Your task to perform on an android device: delete location history Image 0: 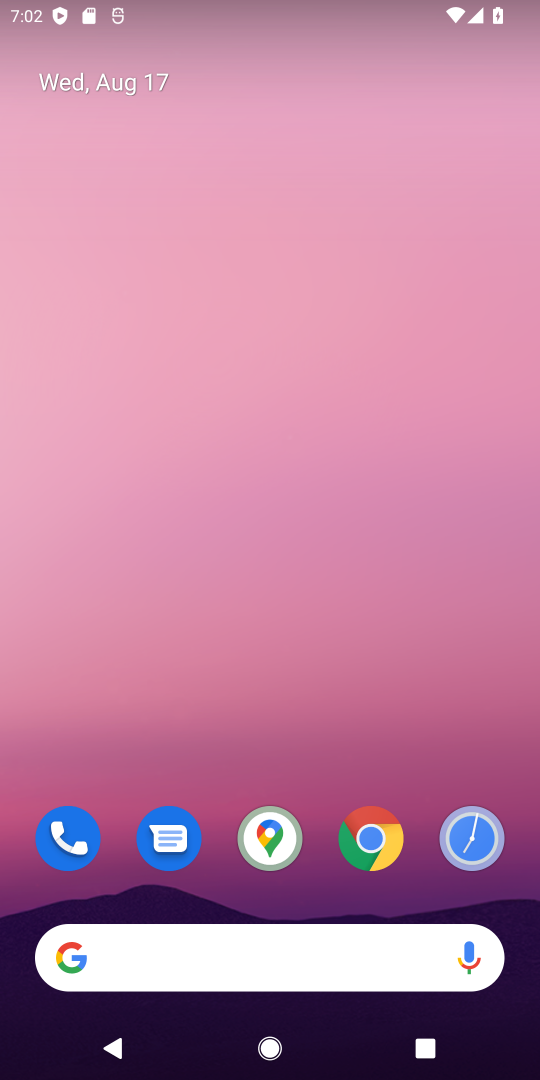
Step 0: drag from (303, 601) to (294, 173)
Your task to perform on an android device: delete location history Image 1: 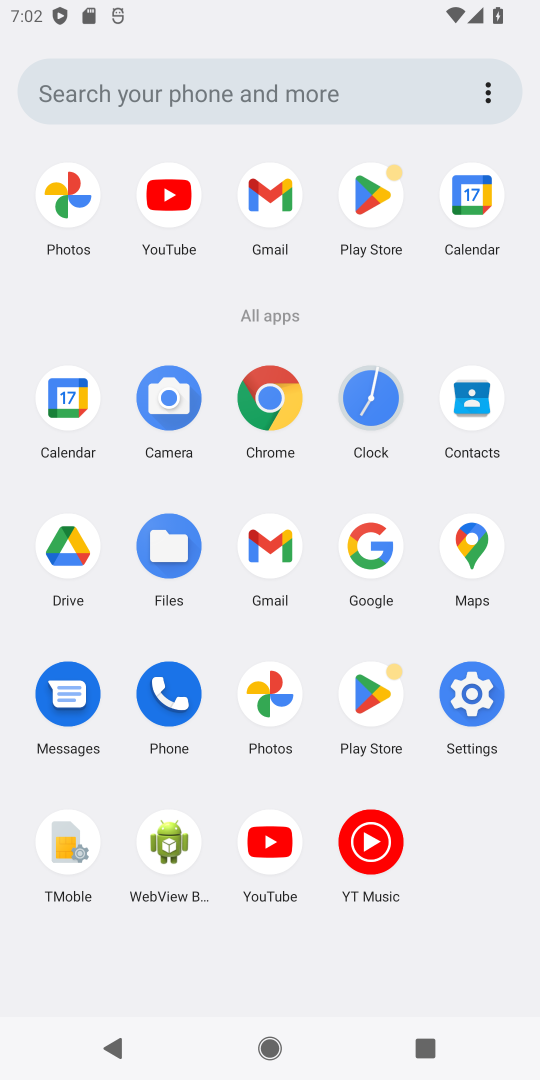
Step 1: click (497, 707)
Your task to perform on an android device: delete location history Image 2: 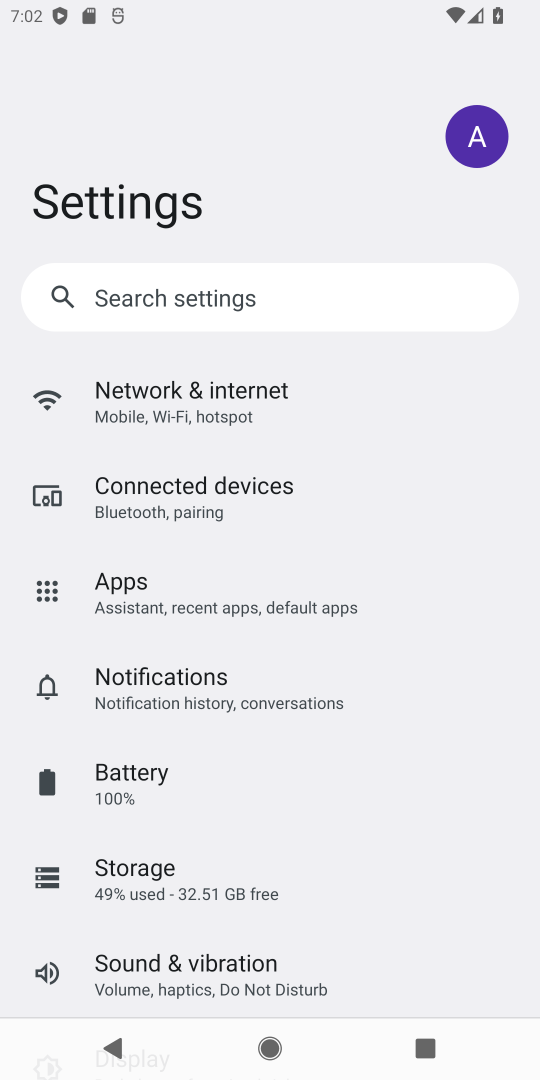
Step 2: drag from (279, 858) to (226, 223)
Your task to perform on an android device: delete location history Image 3: 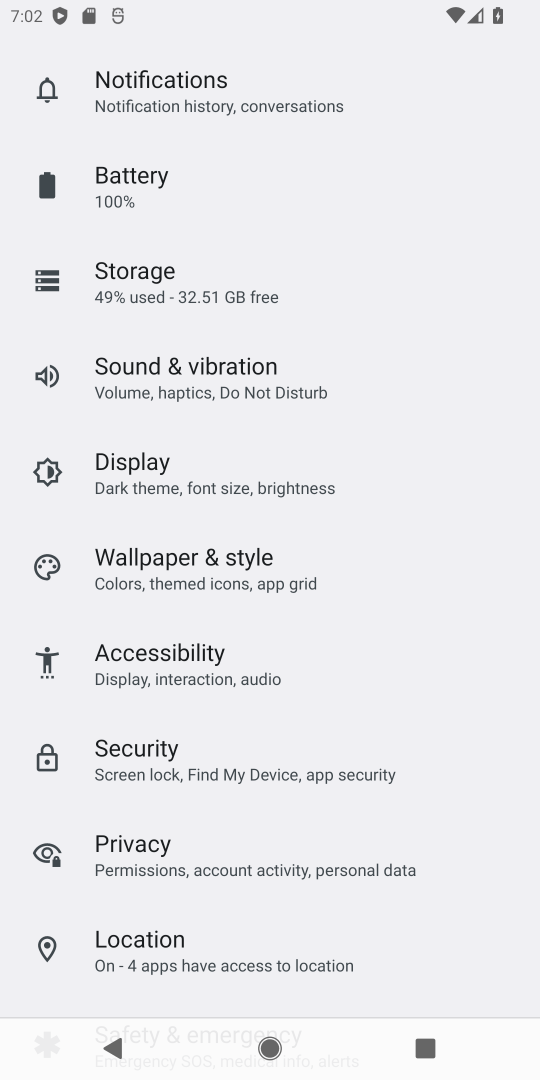
Step 3: click (314, 961)
Your task to perform on an android device: delete location history Image 4: 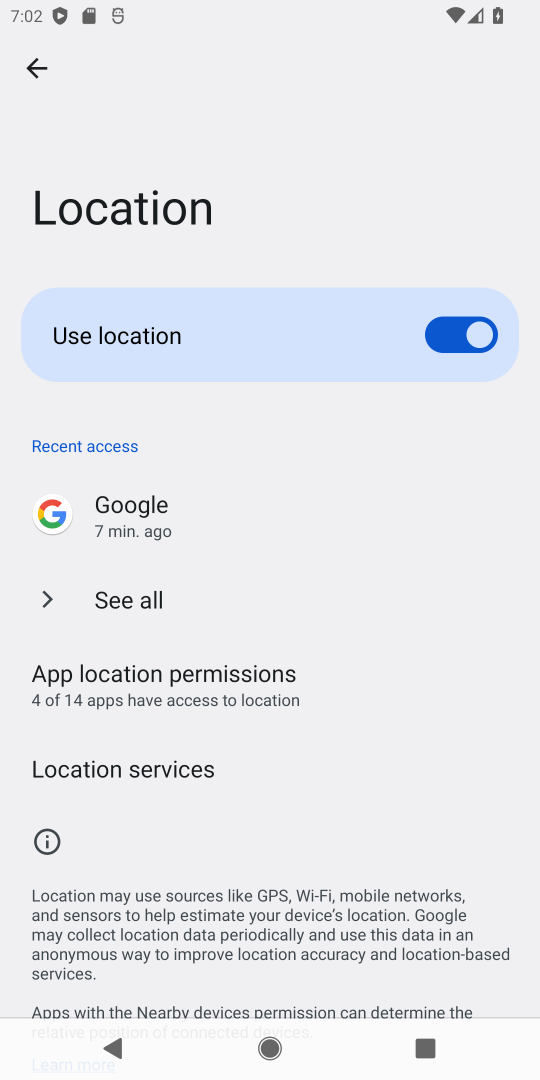
Step 4: drag from (379, 868) to (399, 288)
Your task to perform on an android device: delete location history Image 5: 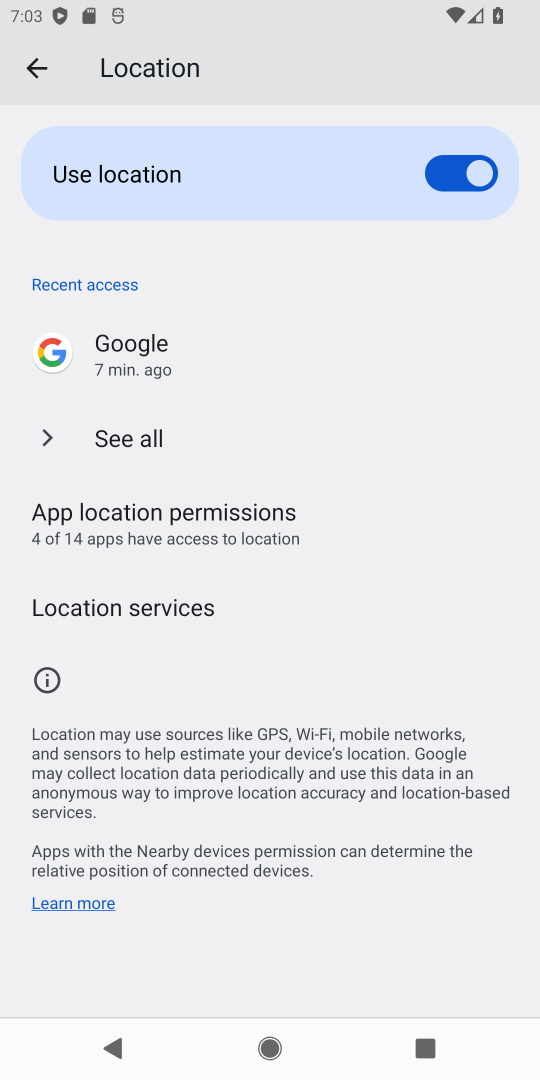
Step 5: click (217, 526)
Your task to perform on an android device: delete location history Image 6: 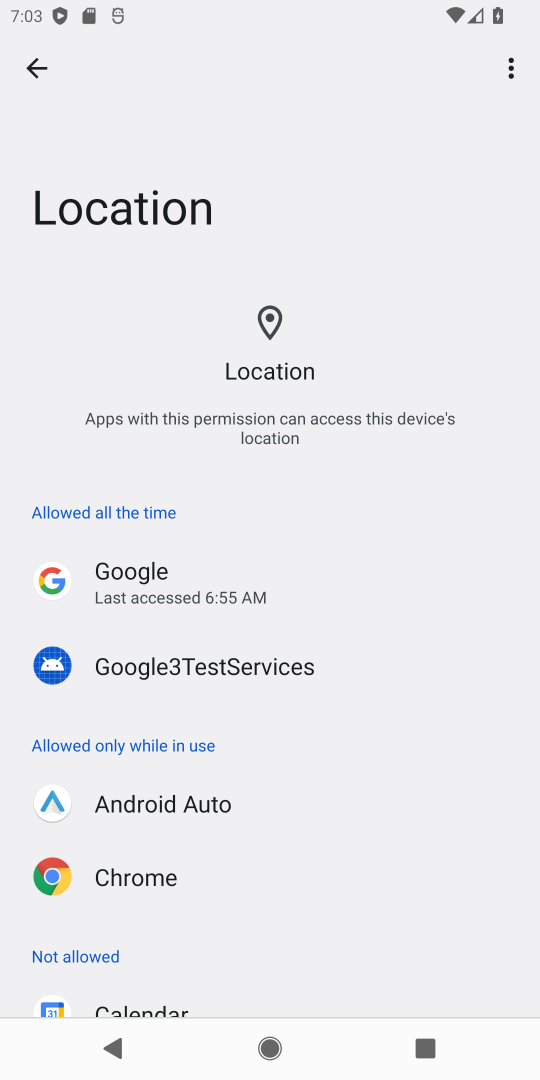
Step 6: drag from (307, 752) to (278, 102)
Your task to perform on an android device: delete location history Image 7: 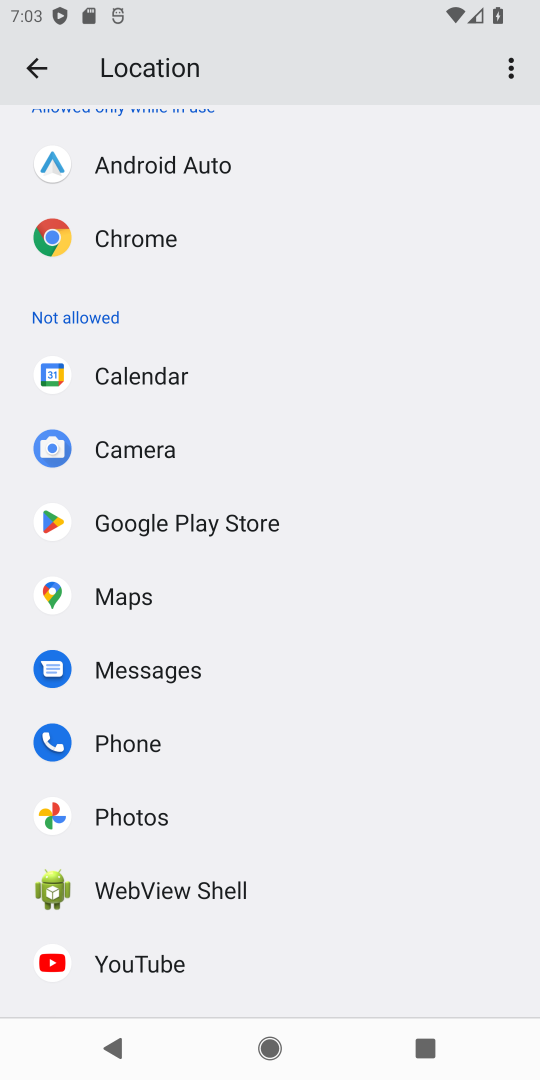
Step 7: click (34, 63)
Your task to perform on an android device: delete location history Image 8: 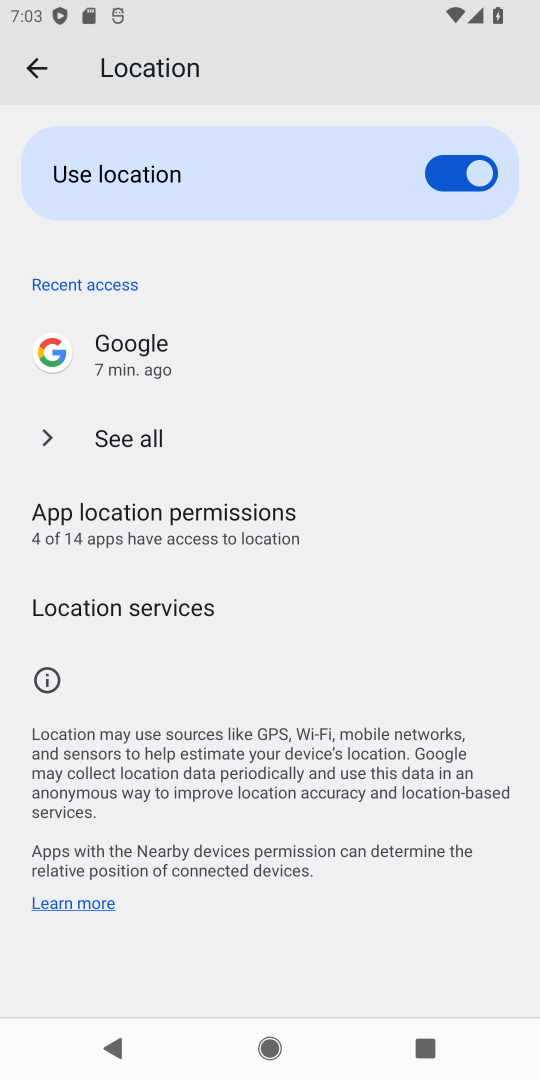
Step 8: click (191, 606)
Your task to perform on an android device: delete location history Image 9: 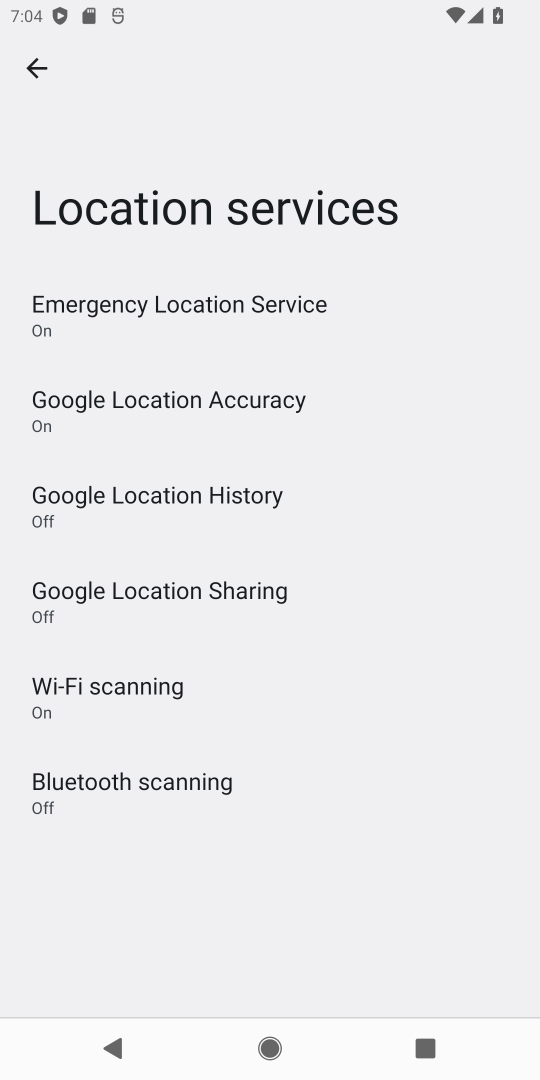
Step 9: click (283, 510)
Your task to perform on an android device: delete location history Image 10: 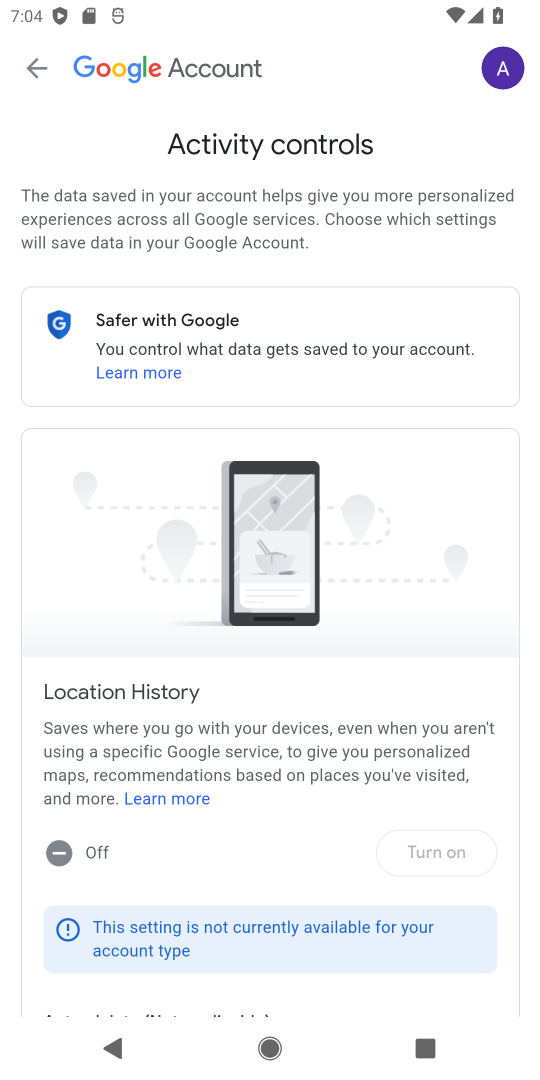
Step 10: drag from (373, 558) to (333, 182)
Your task to perform on an android device: delete location history Image 11: 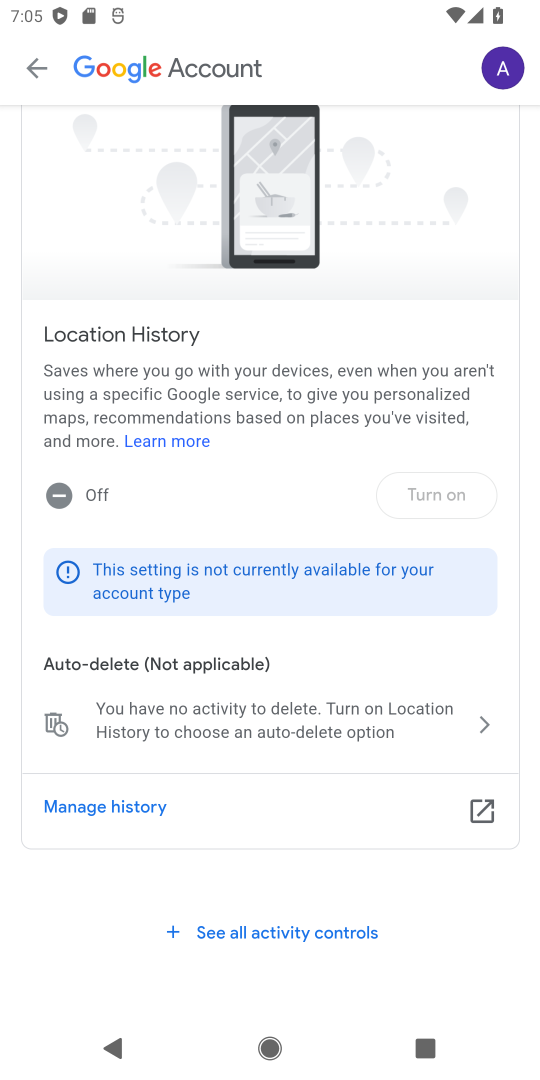
Step 11: click (364, 728)
Your task to perform on an android device: delete location history Image 12: 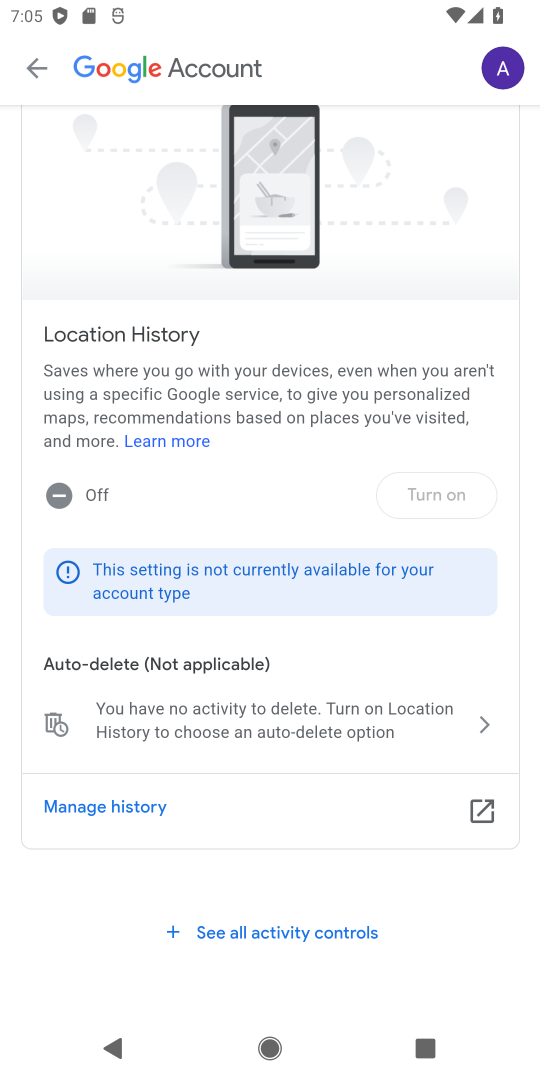
Step 12: click (382, 713)
Your task to perform on an android device: delete location history Image 13: 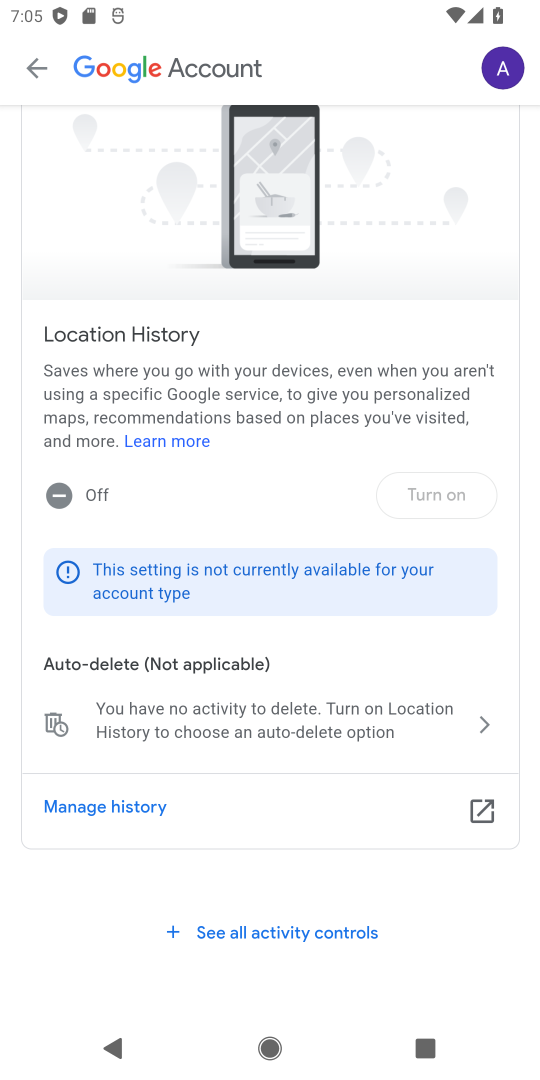
Step 13: task complete